Your task to perform on an android device: change keyboard looks Image 0: 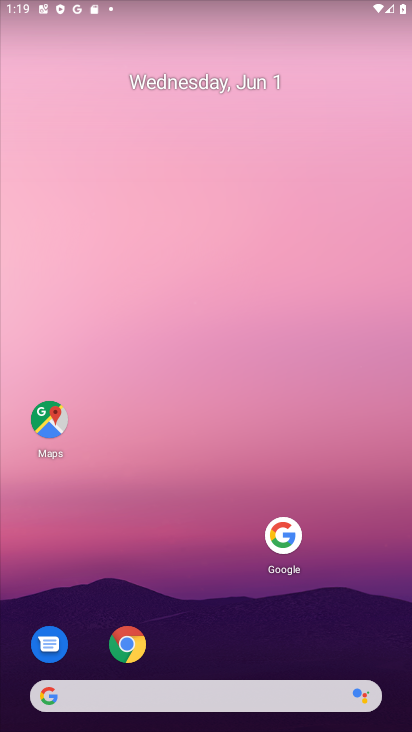
Step 0: press home button
Your task to perform on an android device: change keyboard looks Image 1: 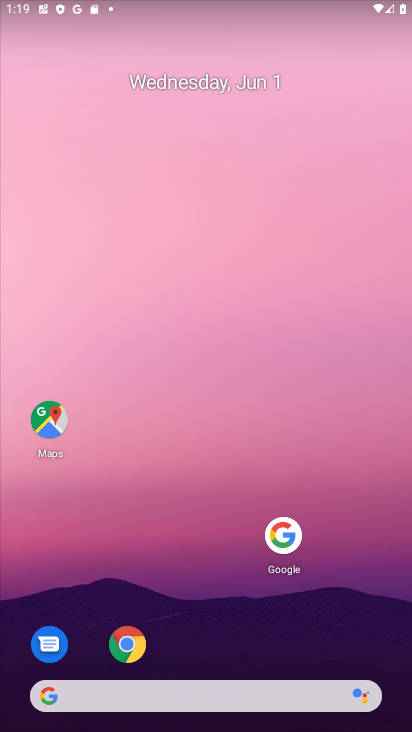
Step 1: drag from (159, 696) to (274, 130)
Your task to perform on an android device: change keyboard looks Image 2: 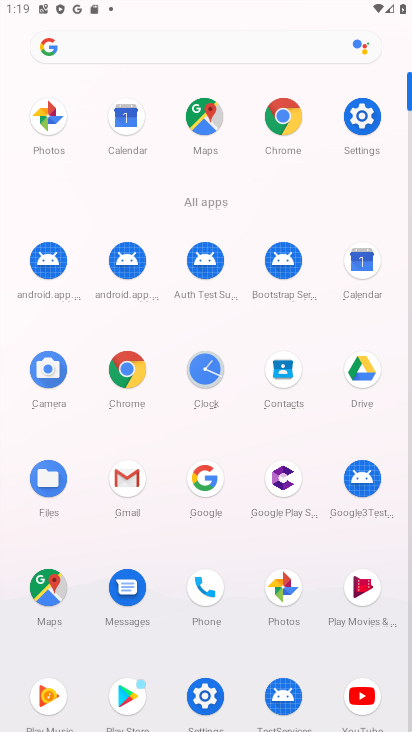
Step 2: click (363, 121)
Your task to perform on an android device: change keyboard looks Image 3: 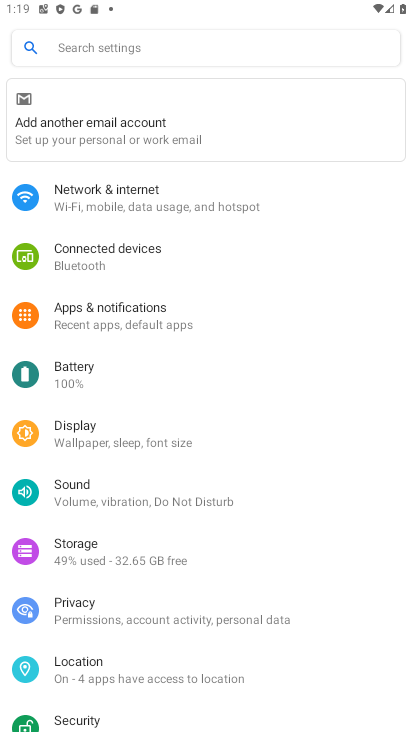
Step 3: drag from (273, 677) to (286, 178)
Your task to perform on an android device: change keyboard looks Image 4: 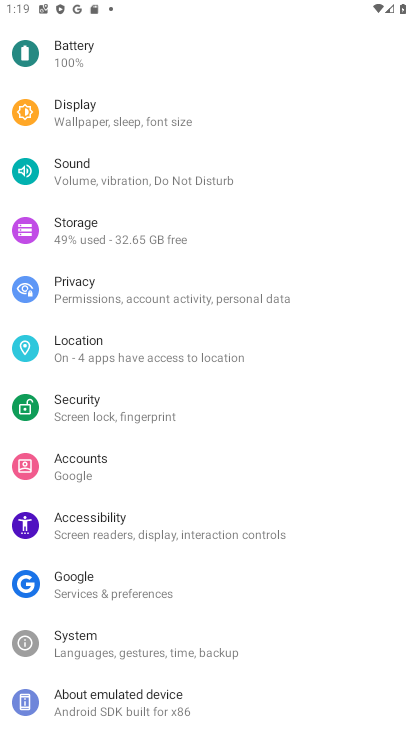
Step 4: click (96, 644)
Your task to perform on an android device: change keyboard looks Image 5: 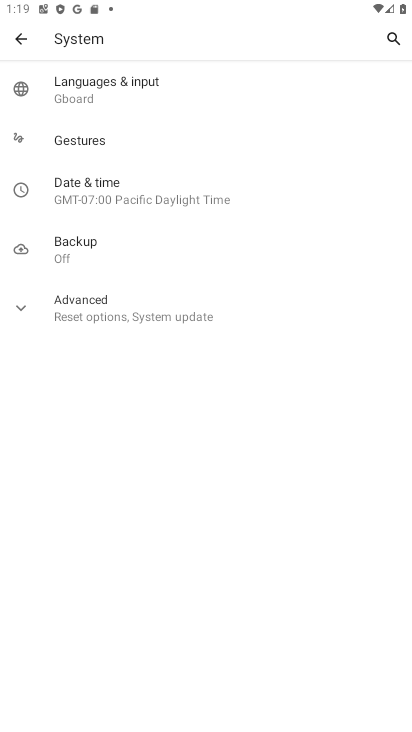
Step 5: click (113, 79)
Your task to perform on an android device: change keyboard looks Image 6: 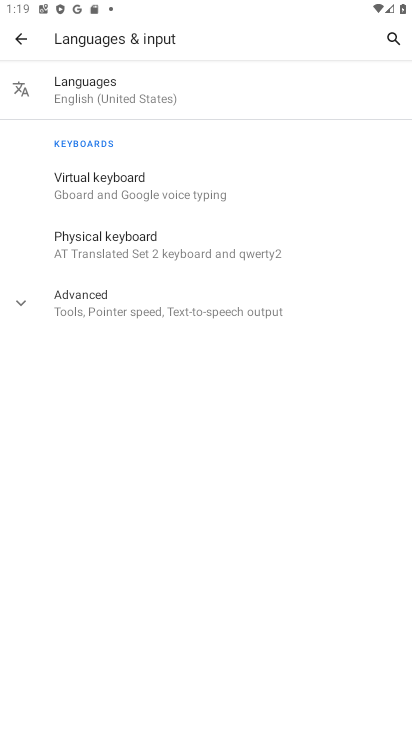
Step 6: click (106, 187)
Your task to perform on an android device: change keyboard looks Image 7: 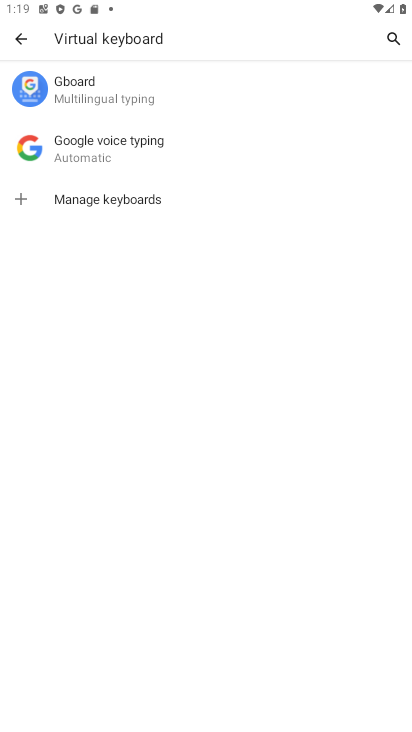
Step 7: click (113, 88)
Your task to perform on an android device: change keyboard looks Image 8: 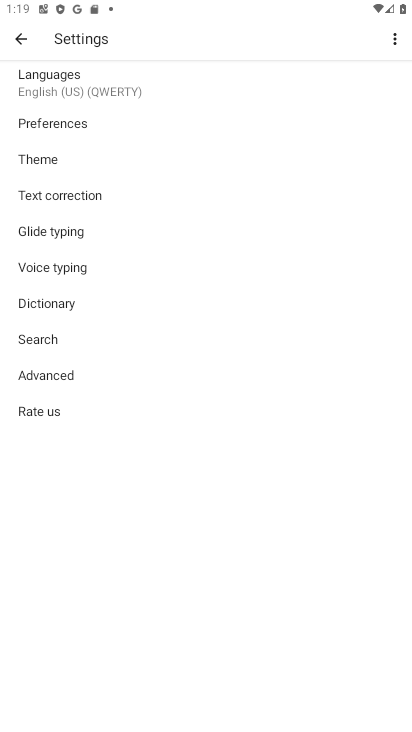
Step 8: click (54, 157)
Your task to perform on an android device: change keyboard looks Image 9: 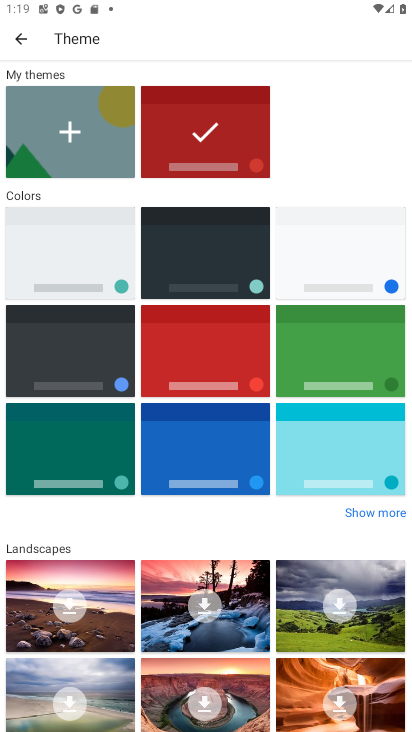
Step 9: click (310, 444)
Your task to perform on an android device: change keyboard looks Image 10: 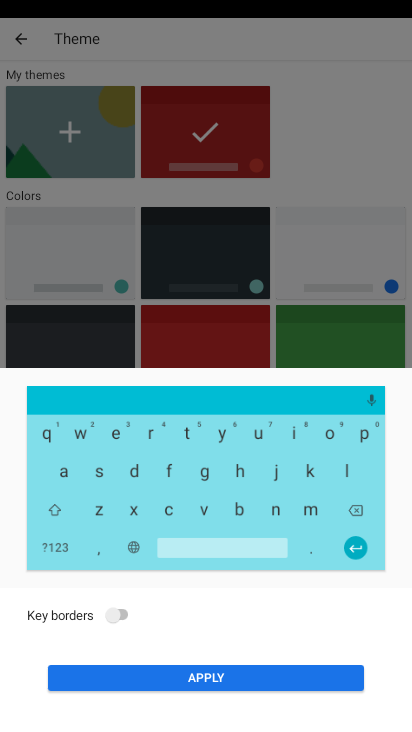
Step 10: click (211, 679)
Your task to perform on an android device: change keyboard looks Image 11: 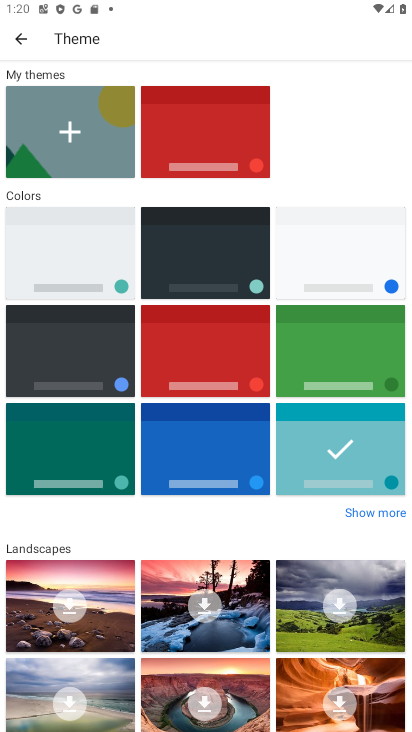
Step 11: task complete